Your task to perform on an android device: toggle wifi Image 0: 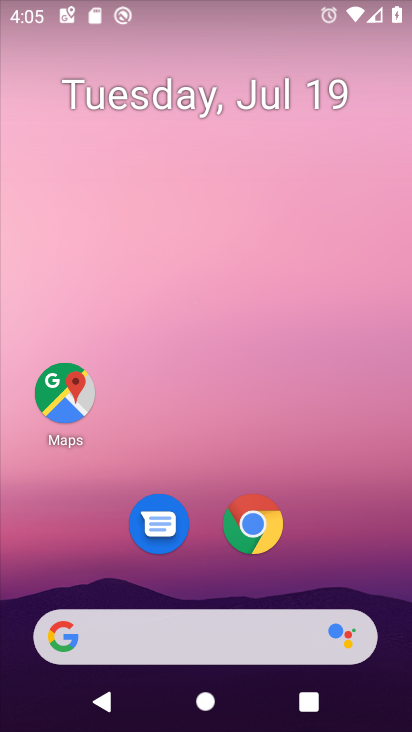
Step 0: drag from (314, 556) to (298, 50)
Your task to perform on an android device: toggle wifi Image 1: 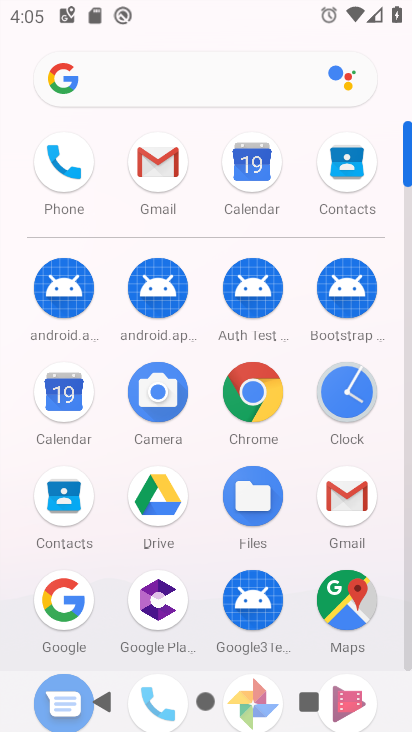
Step 1: drag from (199, 476) to (224, 154)
Your task to perform on an android device: toggle wifi Image 2: 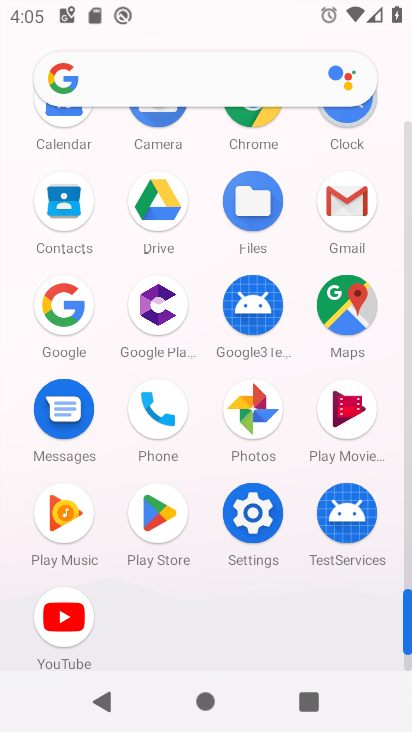
Step 2: click (255, 503)
Your task to perform on an android device: toggle wifi Image 3: 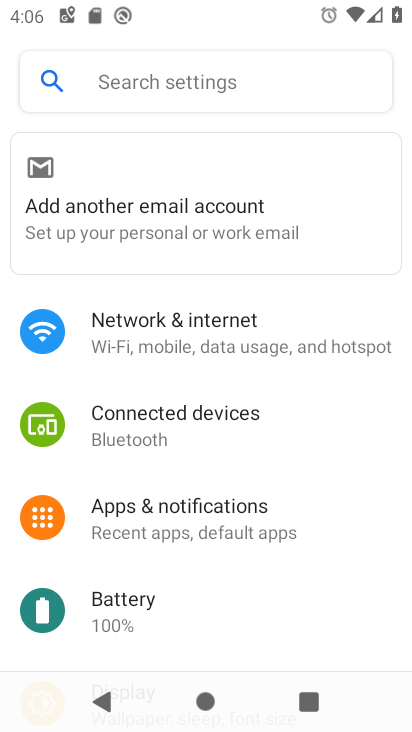
Step 3: click (263, 320)
Your task to perform on an android device: toggle wifi Image 4: 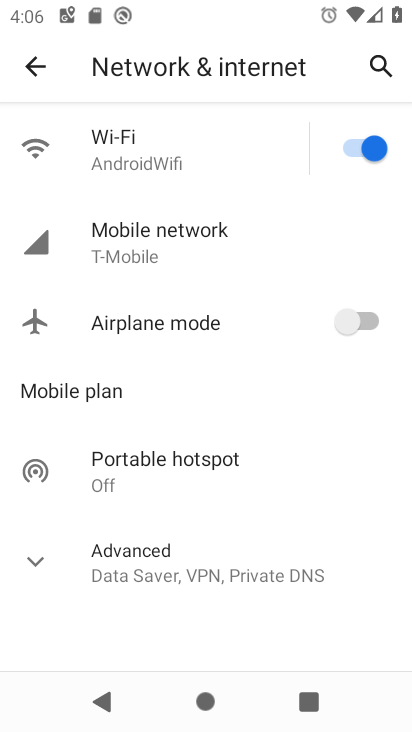
Step 4: click (362, 138)
Your task to perform on an android device: toggle wifi Image 5: 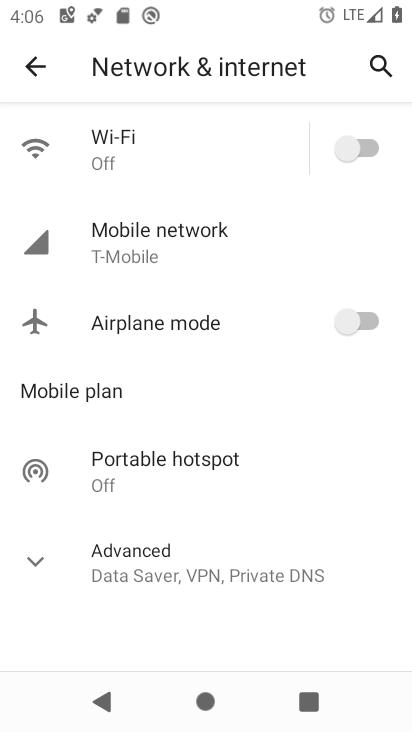
Step 5: task complete